Your task to perform on an android device: toggle data saver in the chrome app Image 0: 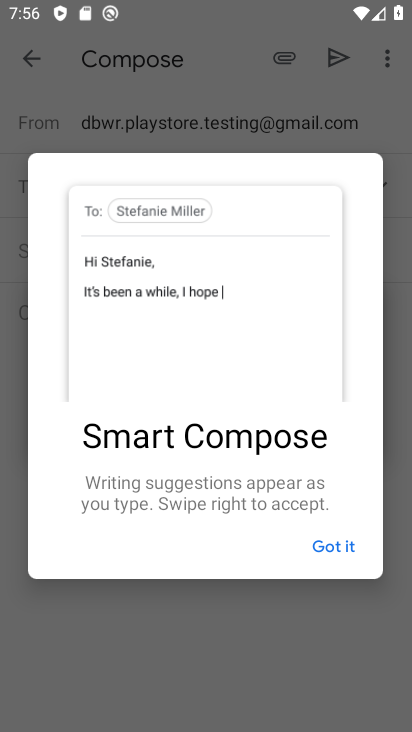
Step 0: press home button
Your task to perform on an android device: toggle data saver in the chrome app Image 1: 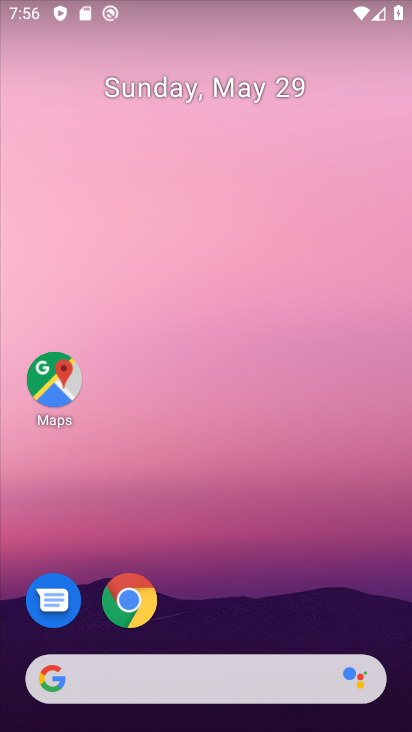
Step 1: drag from (314, 594) to (316, 240)
Your task to perform on an android device: toggle data saver in the chrome app Image 2: 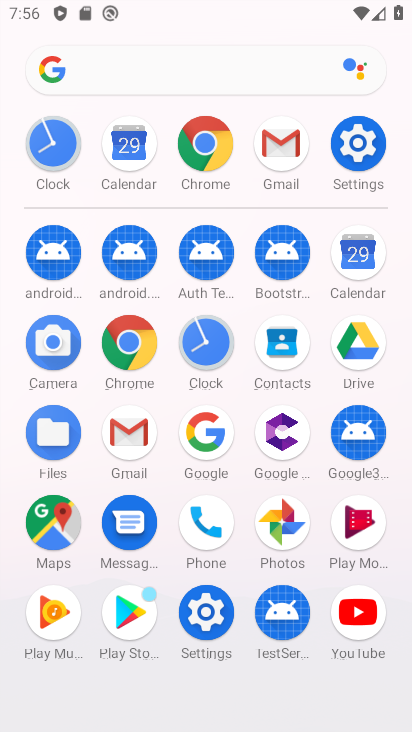
Step 2: click (134, 330)
Your task to perform on an android device: toggle data saver in the chrome app Image 3: 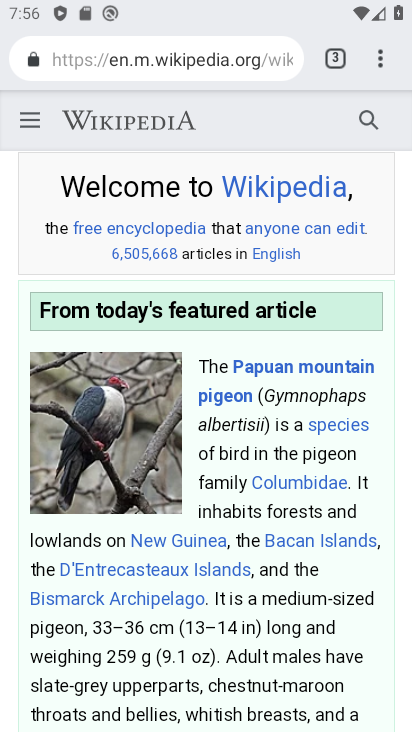
Step 3: drag from (388, 65) to (250, 625)
Your task to perform on an android device: toggle data saver in the chrome app Image 4: 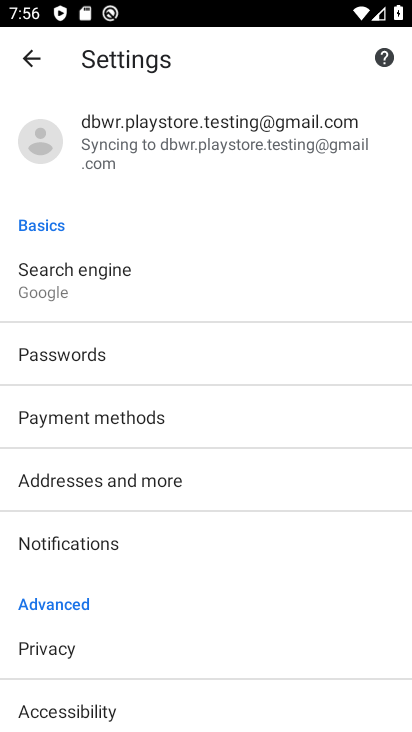
Step 4: drag from (249, 622) to (309, 381)
Your task to perform on an android device: toggle data saver in the chrome app Image 5: 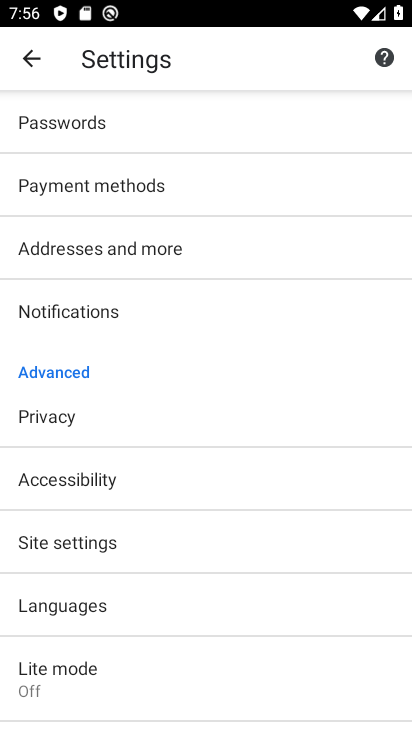
Step 5: drag from (256, 630) to (277, 377)
Your task to perform on an android device: toggle data saver in the chrome app Image 6: 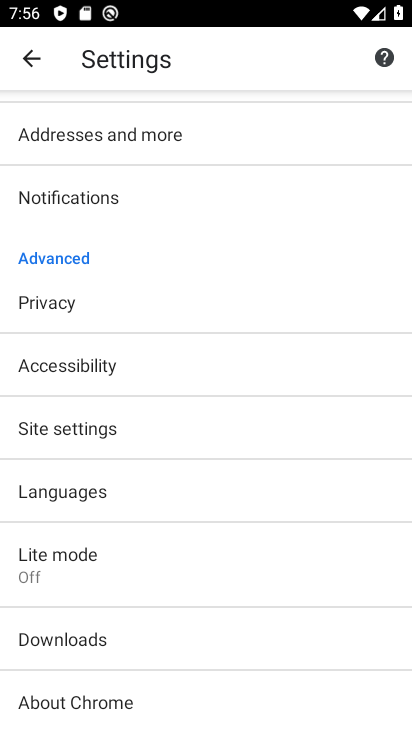
Step 6: drag from (203, 597) to (271, 322)
Your task to perform on an android device: toggle data saver in the chrome app Image 7: 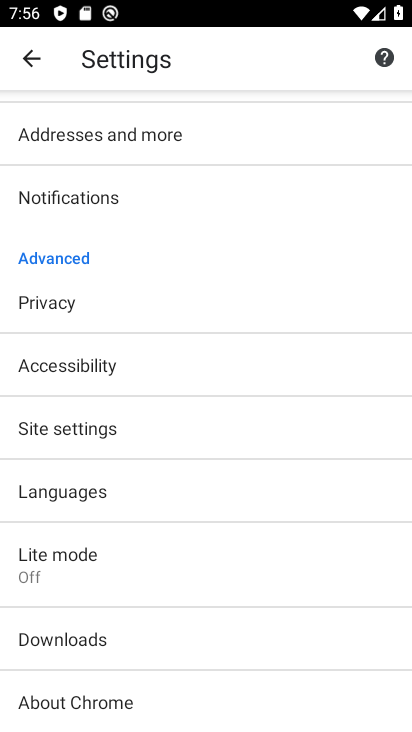
Step 7: click (155, 562)
Your task to perform on an android device: toggle data saver in the chrome app Image 8: 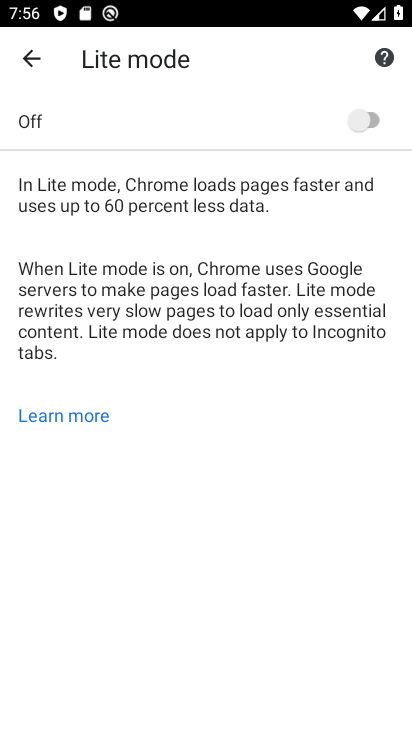
Step 8: click (369, 121)
Your task to perform on an android device: toggle data saver in the chrome app Image 9: 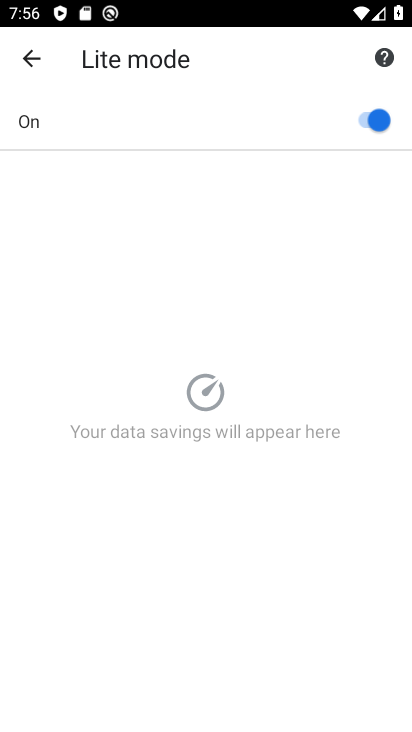
Step 9: task complete